Your task to perform on an android device: open sync settings in chrome Image 0: 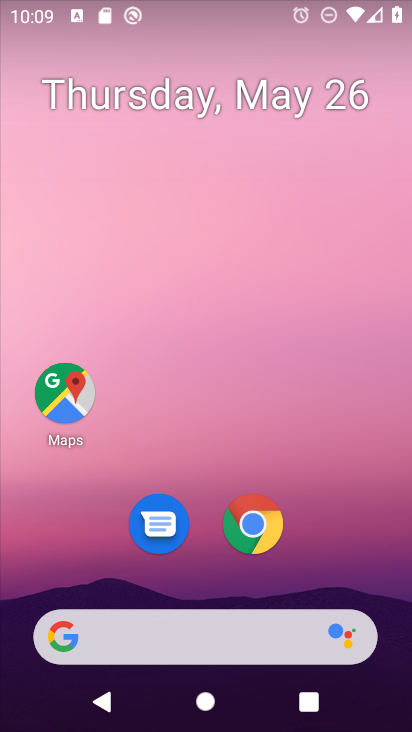
Step 0: click (263, 525)
Your task to perform on an android device: open sync settings in chrome Image 1: 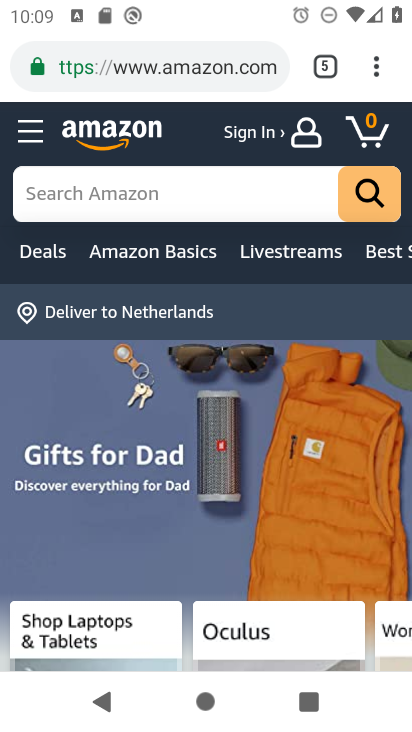
Step 1: click (375, 68)
Your task to perform on an android device: open sync settings in chrome Image 2: 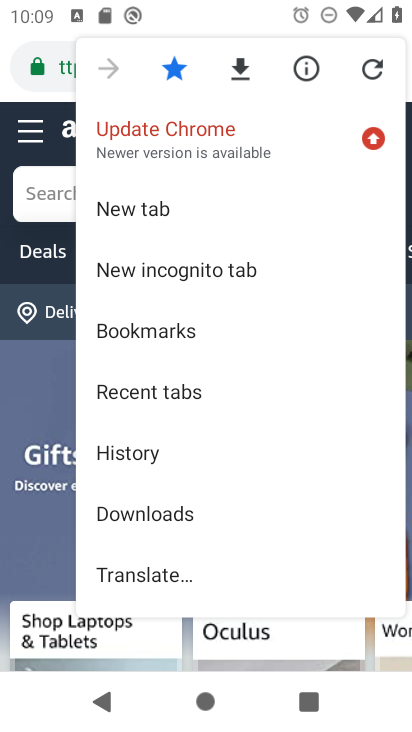
Step 2: drag from (229, 423) to (235, 139)
Your task to perform on an android device: open sync settings in chrome Image 3: 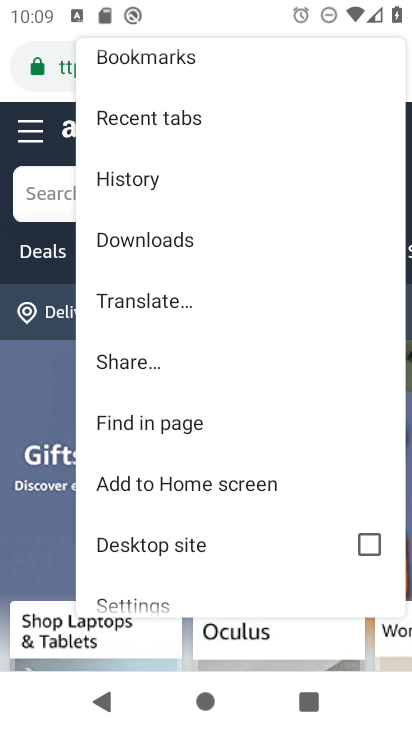
Step 3: drag from (231, 368) to (246, 179)
Your task to perform on an android device: open sync settings in chrome Image 4: 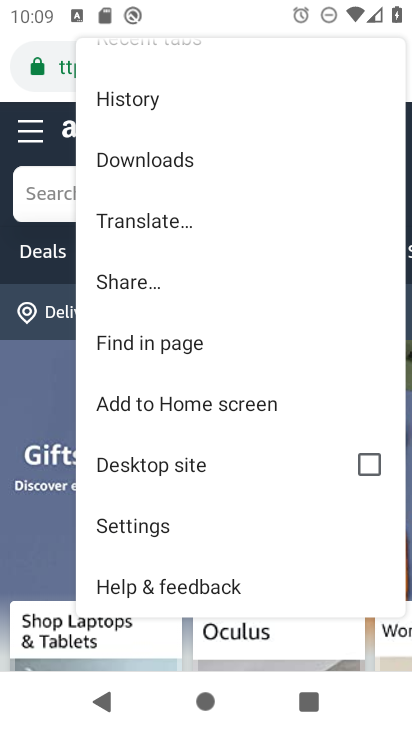
Step 4: click (169, 510)
Your task to perform on an android device: open sync settings in chrome Image 5: 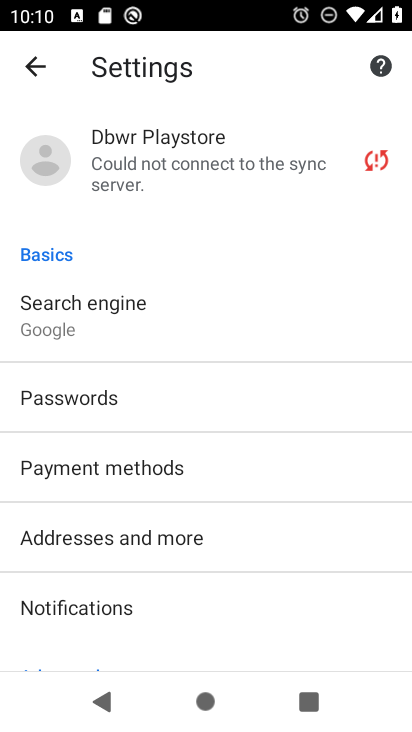
Step 5: click (210, 136)
Your task to perform on an android device: open sync settings in chrome Image 6: 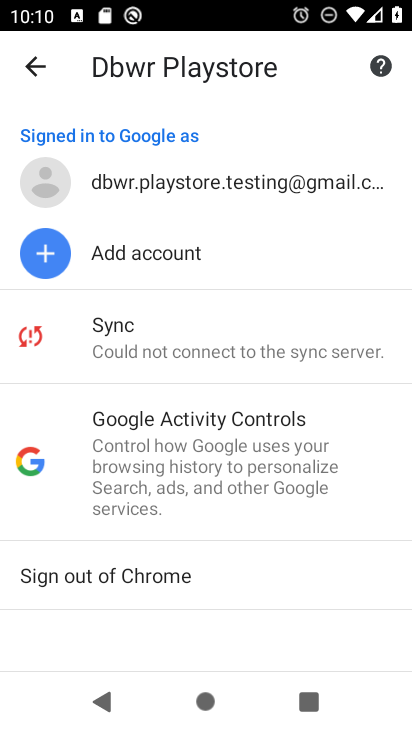
Step 6: click (137, 338)
Your task to perform on an android device: open sync settings in chrome Image 7: 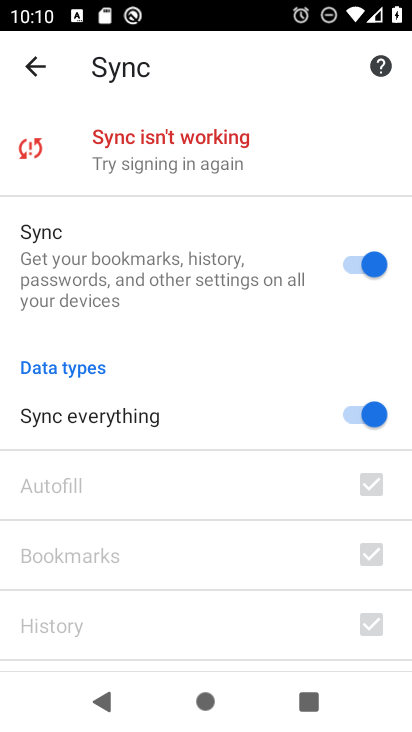
Step 7: task complete